Your task to perform on an android device: create a new album in the google photos Image 0: 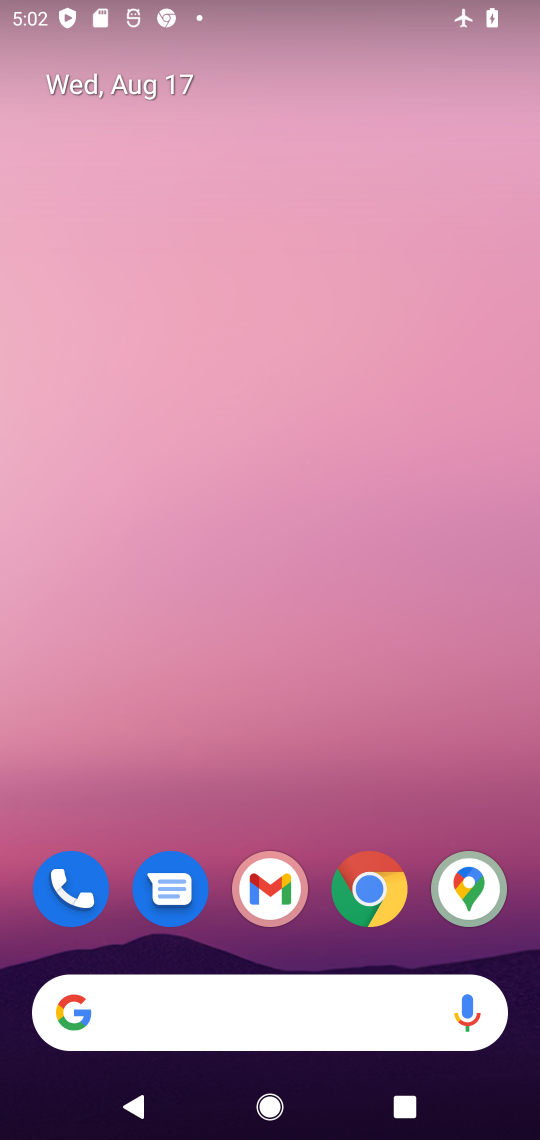
Step 0: drag from (321, 817) to (324, 17)
Your task to perform on an android device: create a new album in the google photos Image 1: 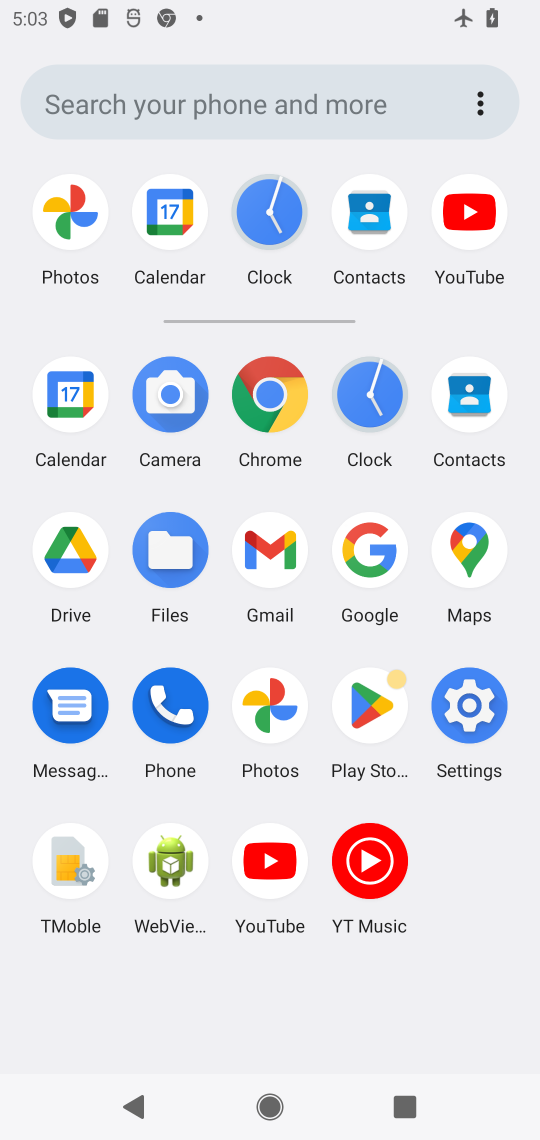
Step 1: click (67, 205)
Your task to perform on an android device: create a new album in the google photos Image 2: 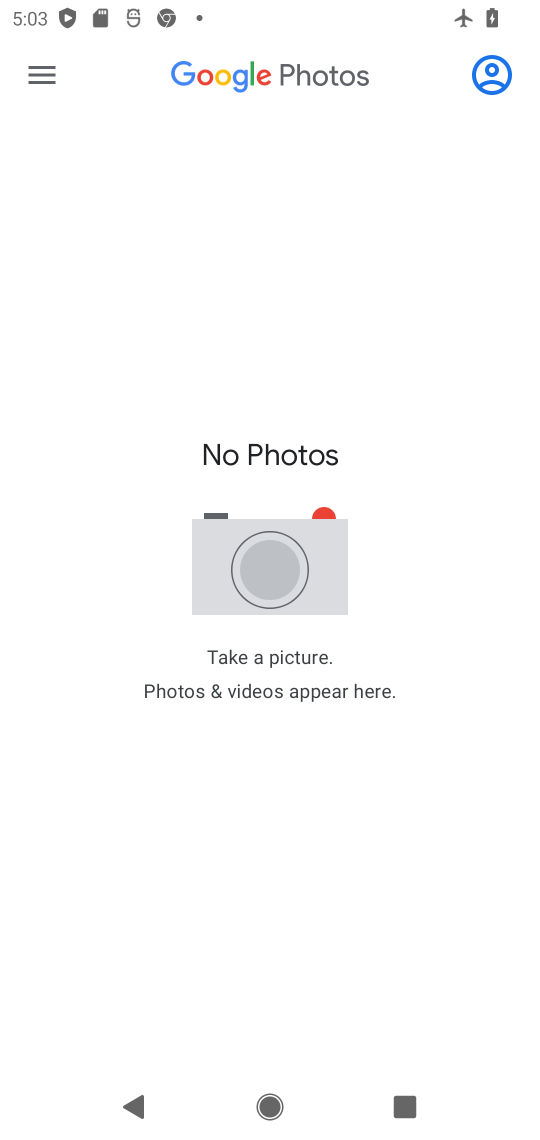
Step 2: click (47, 61)
Your task to perform on an android device: create a new album in the google photos Image 3: 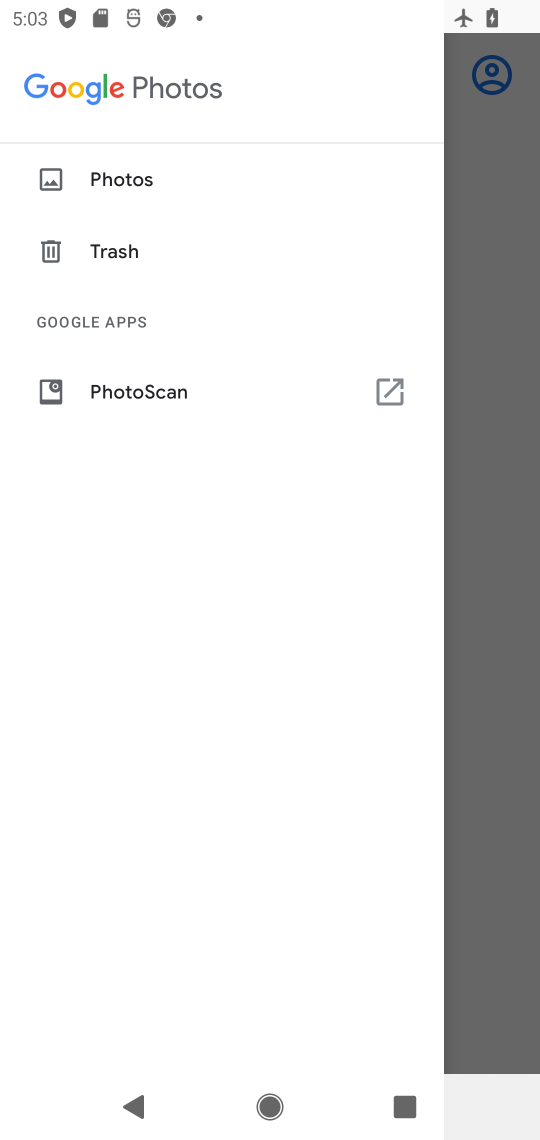
Step 3: click (111, 171)
Your task to perform on an android device: create a new album in the google photos Image 4: 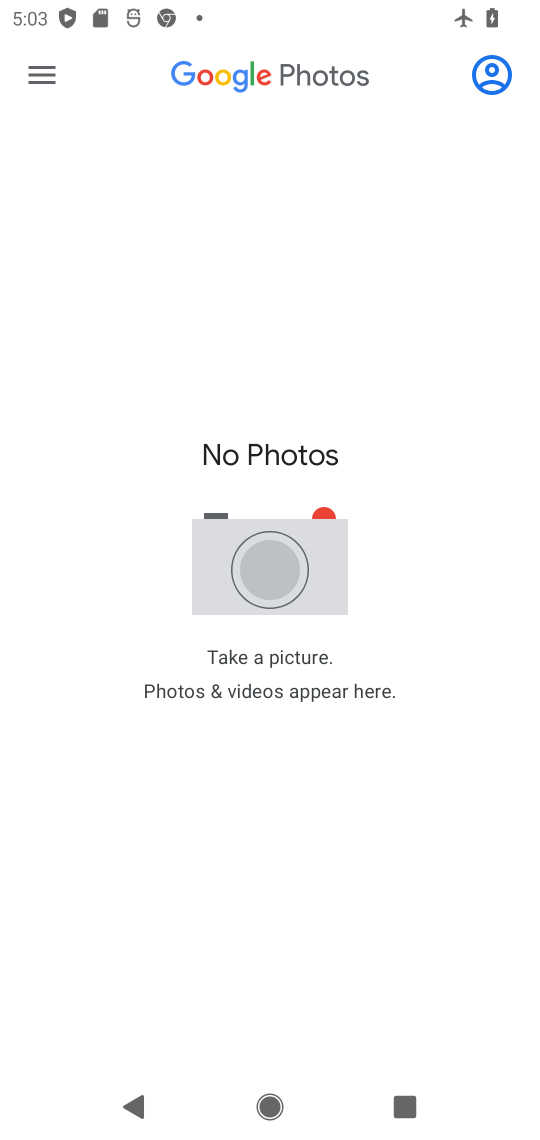
Step 4: click (500, 63)
Your task to perform on an android device: create a new album in the google photos Image 5: 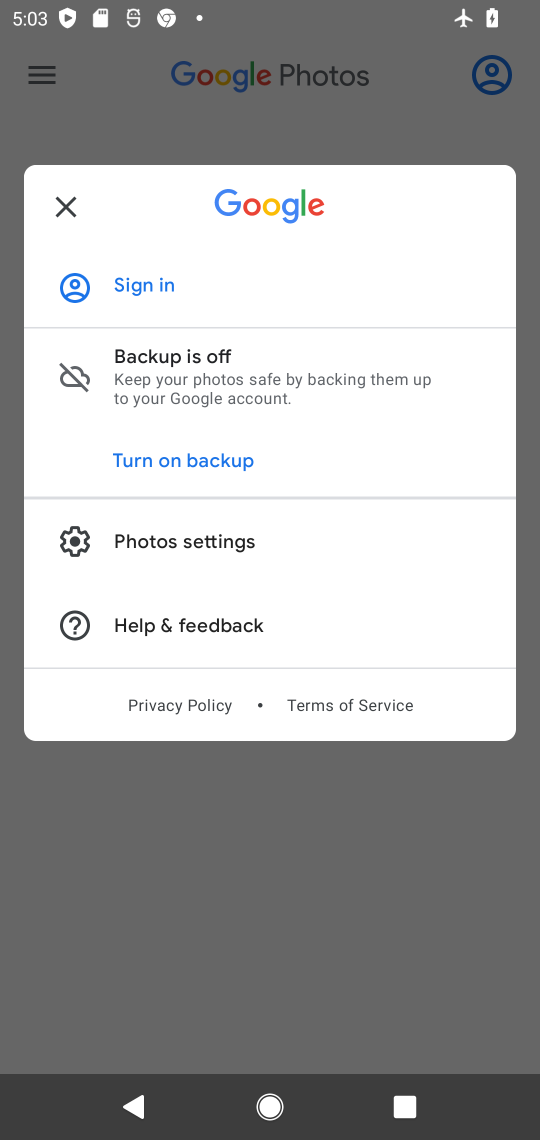
Step 5: task complete